Your task to perform on an android device: turn off javascript in the chrome app Image 0: 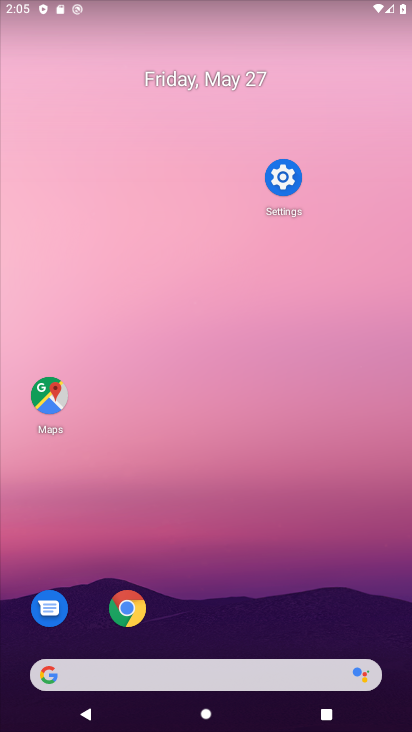
Step 0: click (122, 617)
Your task to perform on an android device: turn off javascript in the chrome app Image 1: 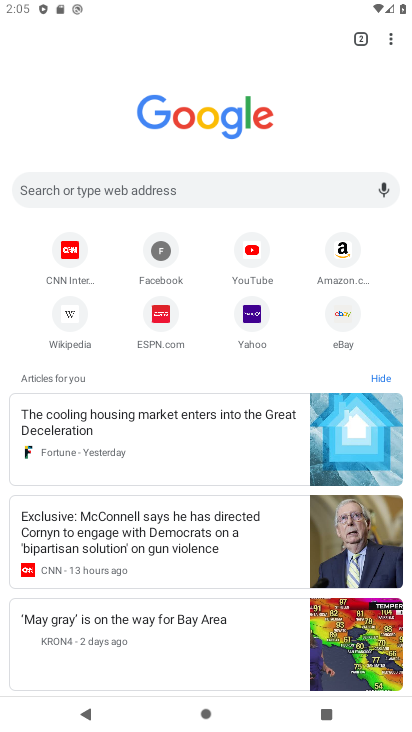
Step 1: click (394, 37)
Your task to perform on an android device: turn off javascript in the chrome app Image 2: 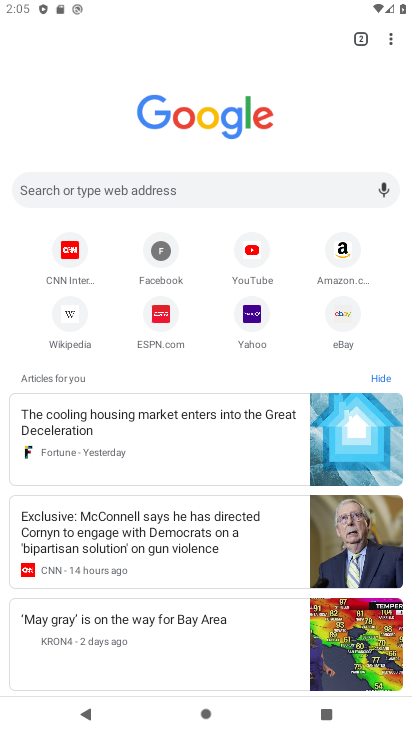
Step 2: drag from (394, 37) to (261, 330)
Your task to perform on an android device: turn off javascript in the chrome app Image 3: 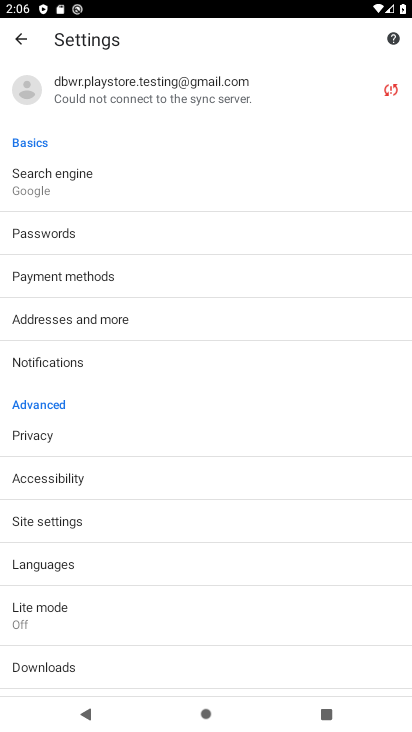
Step 3: click (63, 523)
Your task to perform on an android device: turn off javascript in the chrome app Image 4: 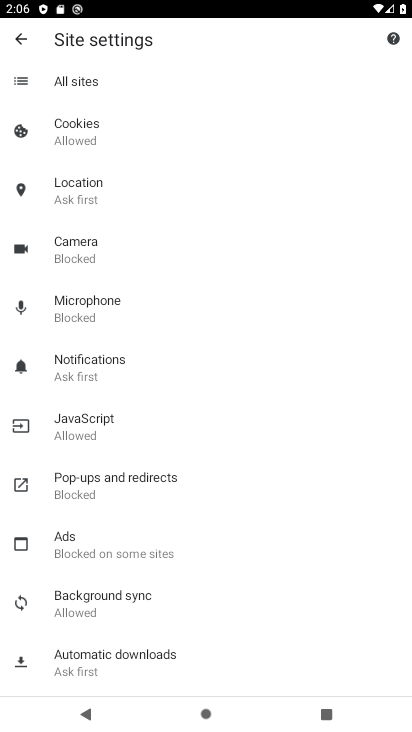
Step 4: click (101, 420)
Your task to perform on an android device: turn off javascript in the chrome app Image 5: 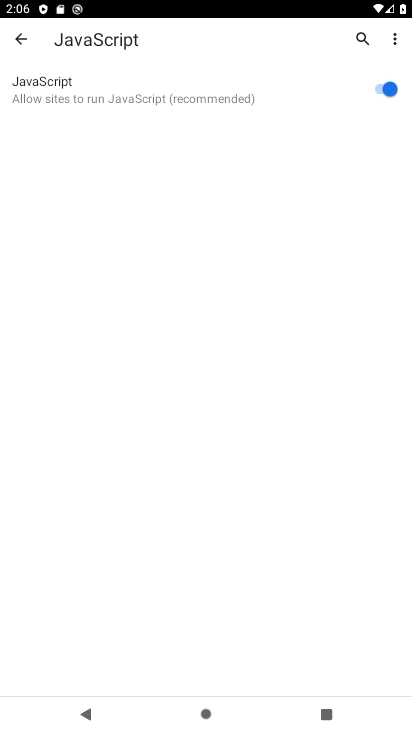
Step 5: click (379, 91)
Your task to perform on an android device: turn off javascript in the chrome app Image 6: 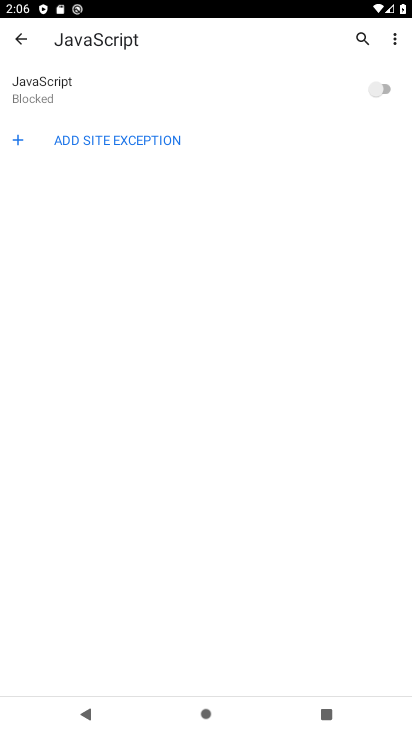
Step 6: task complete